Your task to perform on an android device: check battery use Image 0: 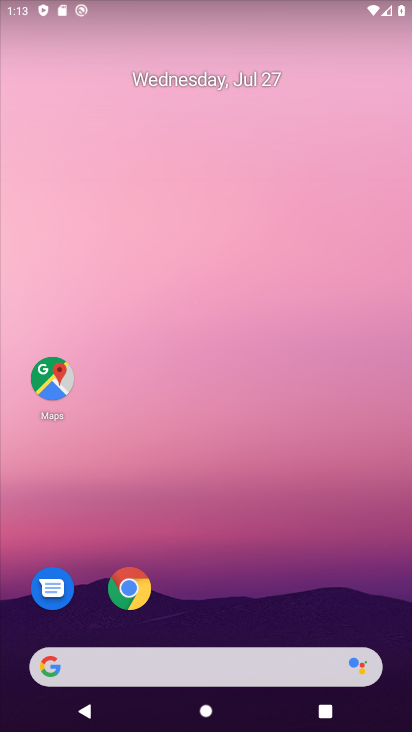
Step 0: click (205, 143)
Your task to perform on an android device: check battery use Image 1: 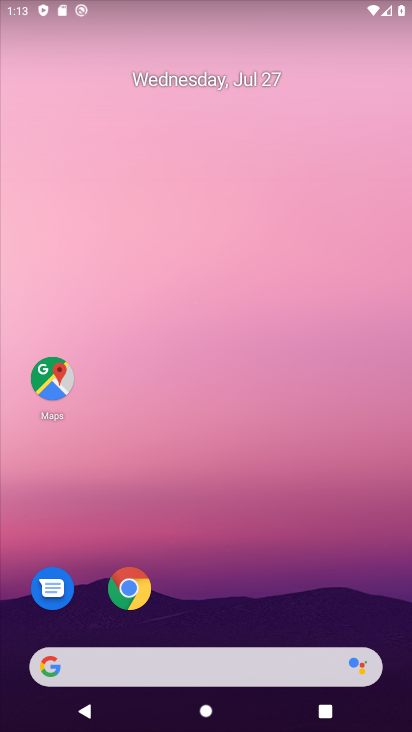
Step 1: drag from (228, 637) to (232, 83)
Your task to perform on an android device: check battery use Image 2: 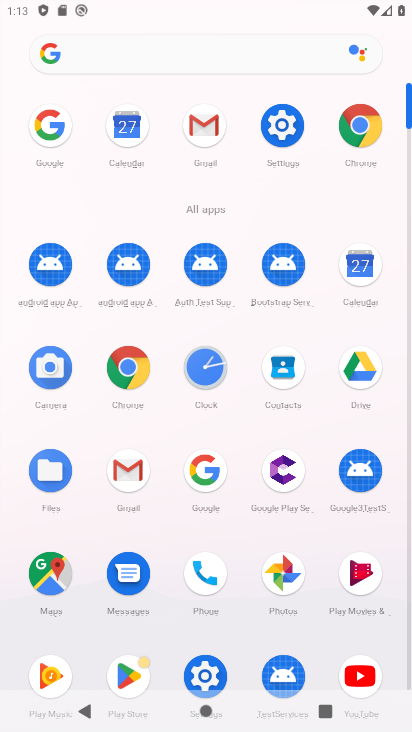
Step 2: click (278, 124)
Your task to perform on an android device: check battery use Image 3: 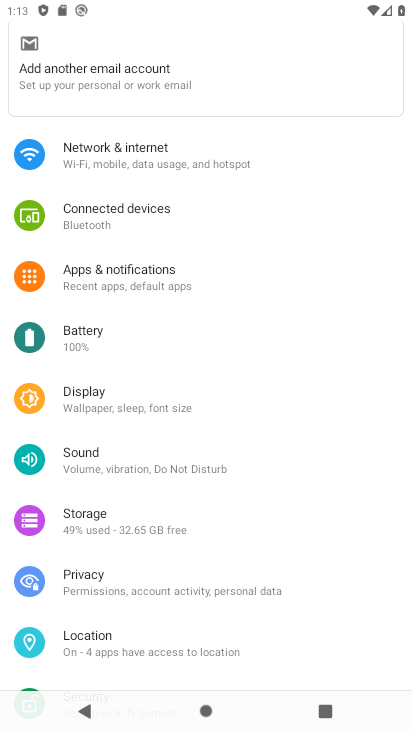
Step 3: click (141, 333)
Your task to perform on an android device: check battery use Image 4: 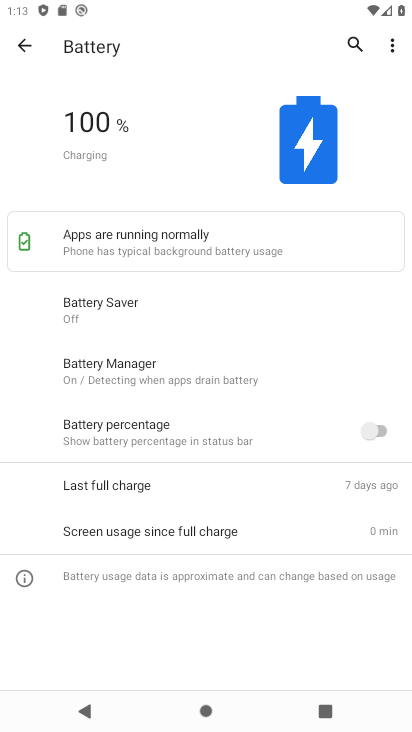
Step 4: click (392, 48)
Your task to perform on an android device: check battery use Image 5: 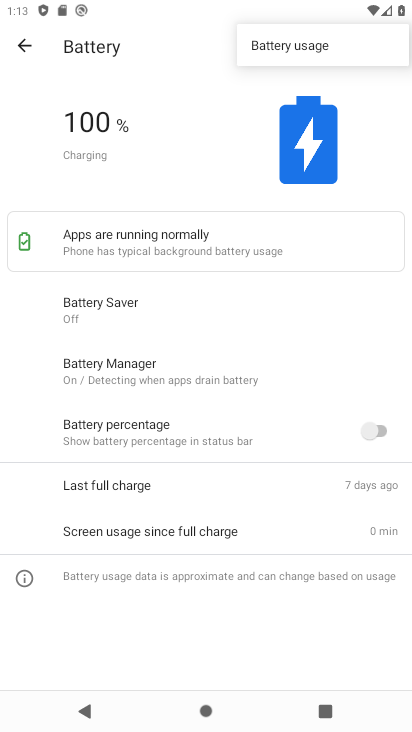
Step 5: click (310, 45)
Your task to perform on an android device: check battery use Image 6: 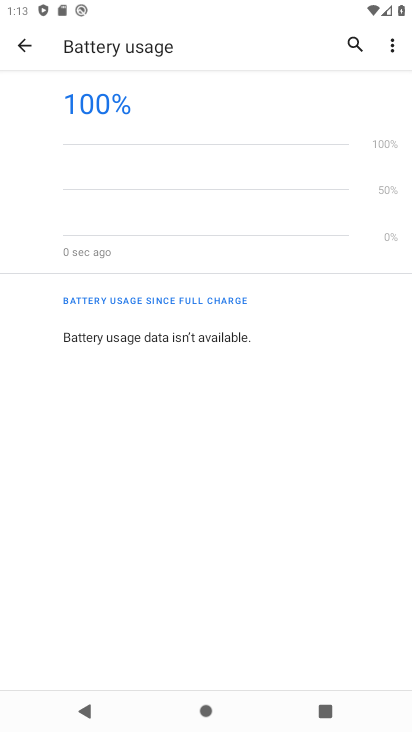
Step 6: task complete